Your task to perform on an android device: Go to display settings Image 0: 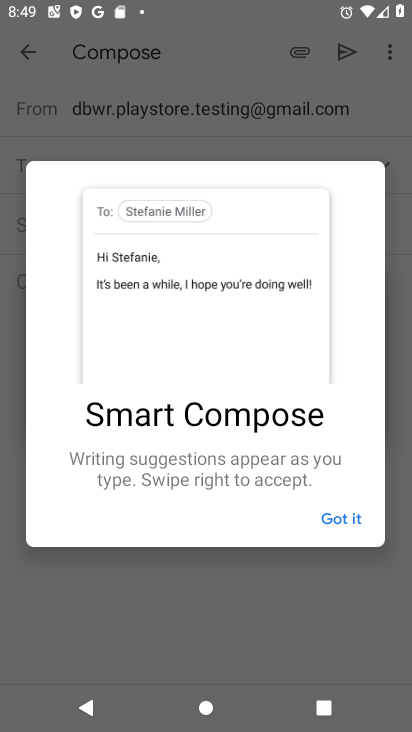
Step 0: press back button
Your task to perform on an android device: Go to display settings Image 1: 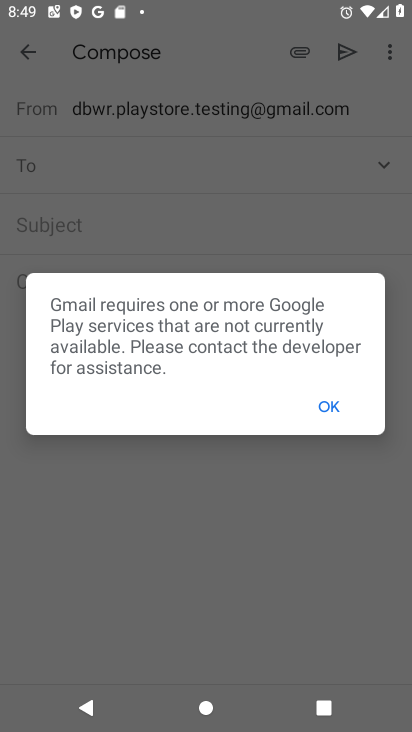
Step 1: press home button
Your task to perform on an android device: Go to display settings Image 2: 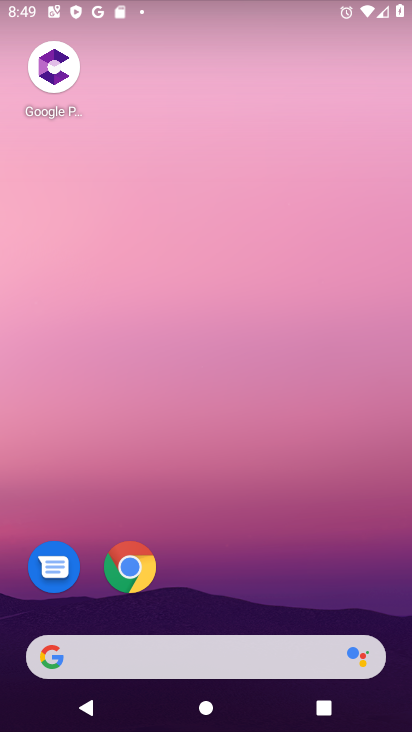
Step 2: drag from (256, 603) to (243, 27)
Your task to perform on an android device: Go to display settings Image 3: 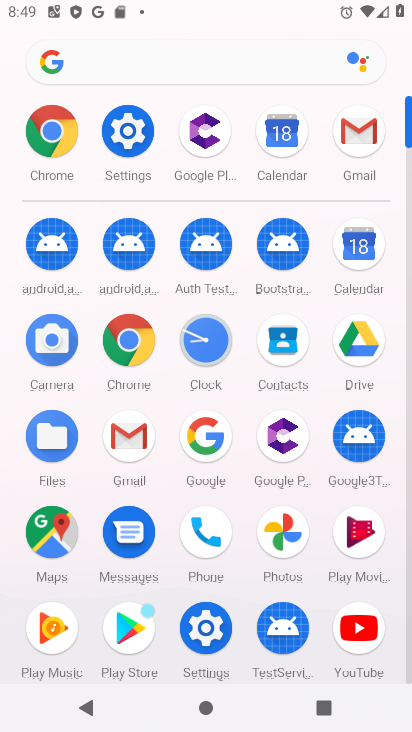
Step 3: drag from (16, 552) to (16, 272)
Your task to perform on an android device: Go to display settings Image 4: 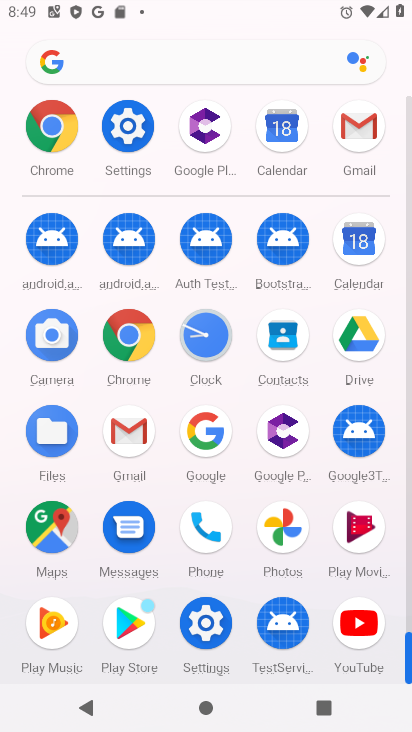
Step 4: click (208, 618)
Your task to perform on an android device: Go to display settings Image 5: 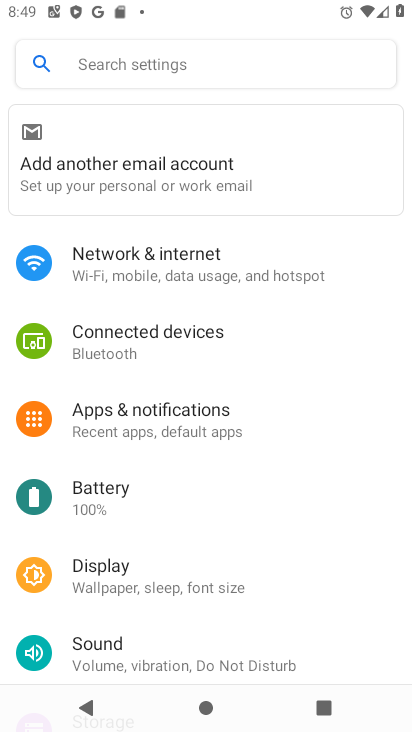
Step 5: click (99, 572)
Your task to perform on an android device: Go to display settings Image 6: 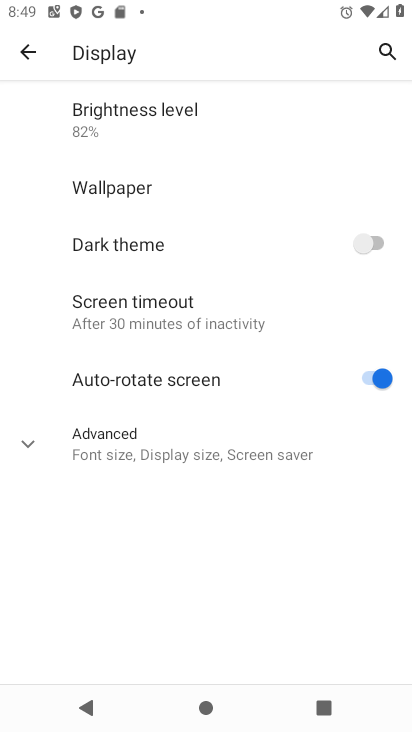
Step 6: click (53, 436)
Your task to perform on an android device: Go to display settings Image 7: 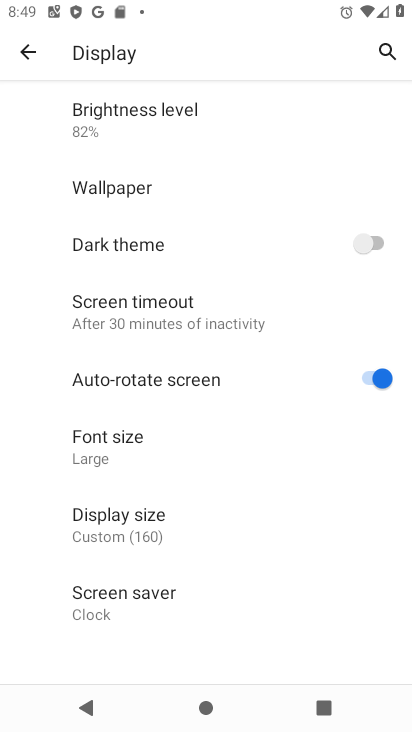
Step 7: task complete